Your task to perform on an android device: turn off smart reply in the gmail app Image 0: 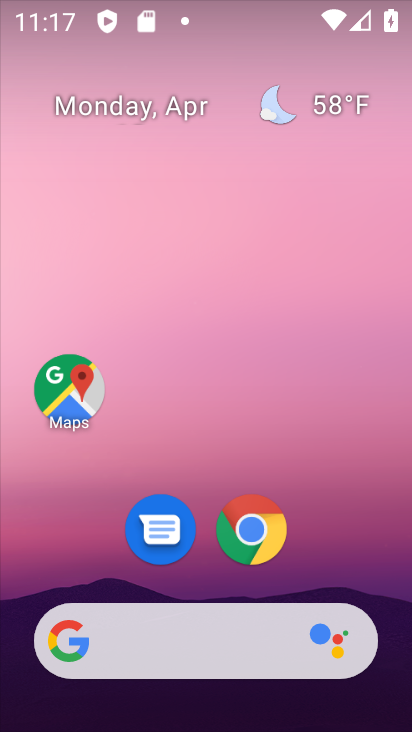
Step 0: drag from (381, 604) to (213, 52)
Your task to perform on an android device: turn off smart reply in the gmail app Image 1: 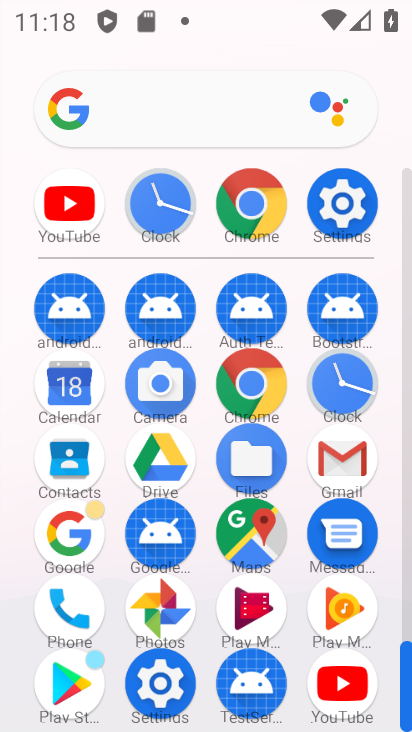
Step 1: click (345, 457)
Your task to perform on an android device: turn off smart reply in the gmail app Image 2: 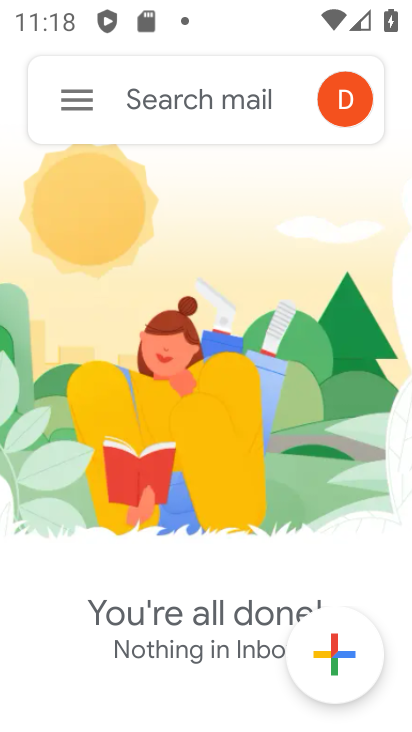
Step 2: click (78, 94)
Your task to perform on an android device: turn off smart reply in the gmail app Image 3: 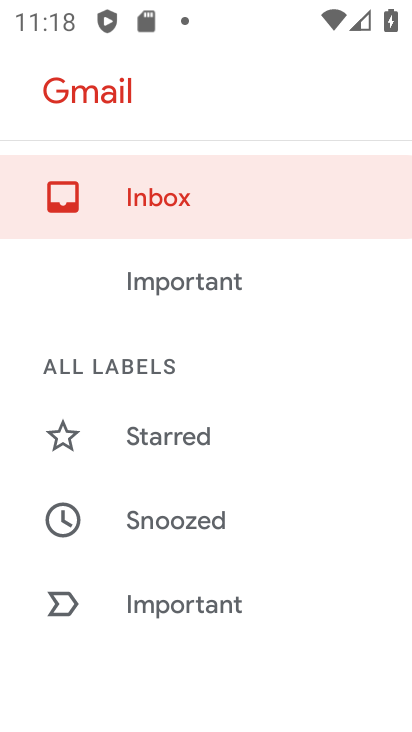
Step 3: drag from (169, 617) to (197, 141)
Your task to perform on an android device: turn off smart reply in the gmail app Image 4: 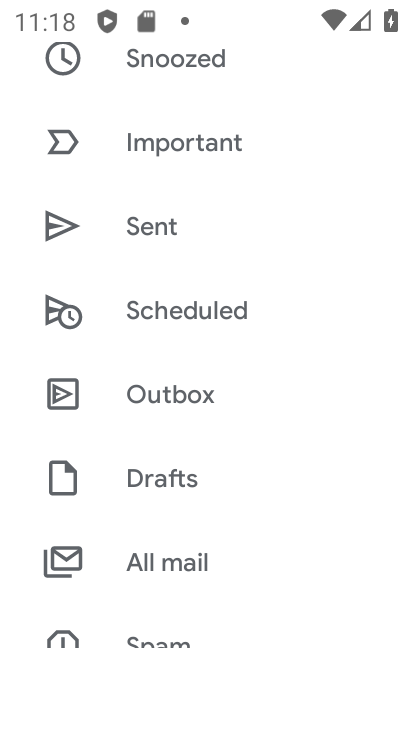
Step 4: drag from (192, 597) to (242, 88)
Your task to perform on an android device: turn off smart reply in the gmail app Image 5: 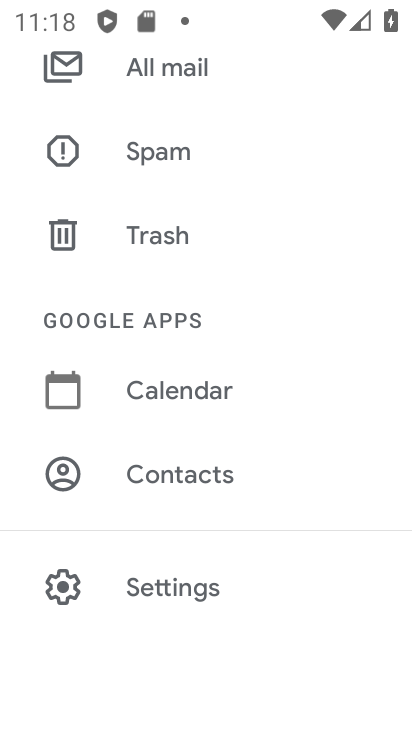
Step 5: click (192, 576)
Your task to perform on an android device: turn off smart reply in the gmail app Image 6: 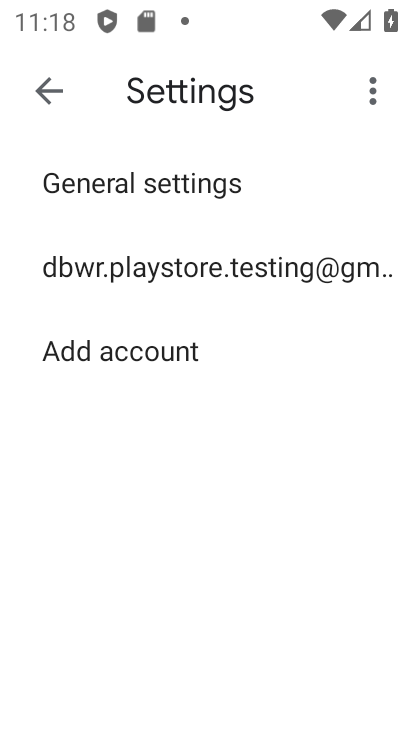
Step 6: click (188, 265)
Your task to perform on an android device: turn off smart reply in the gmail app Image 7: 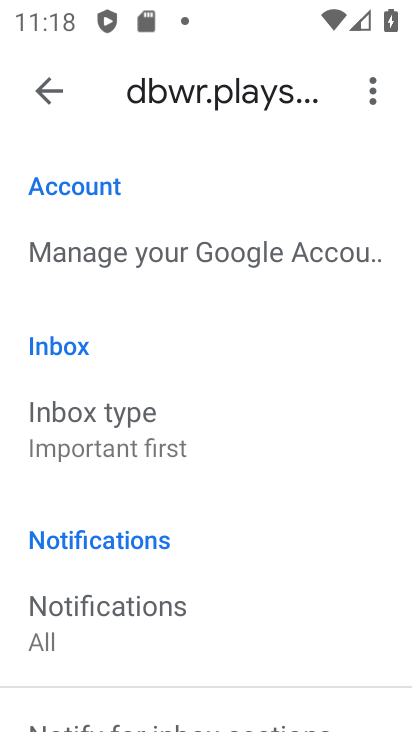
Step 7: drag from (87, 672) to (206, 245)
Your task to perform on an android device: turn off smart reply in the gmail app Image 8: 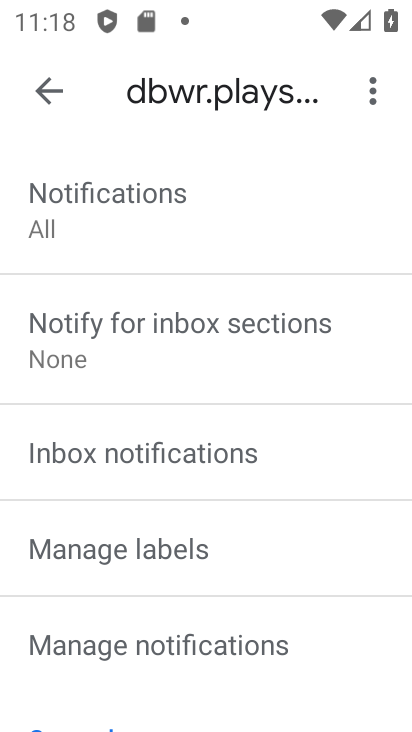
Step 8: drag from (101, 217) to (204, 561)
Your task to perform on an android device: turn off smart reply in the gmail app Image 9: 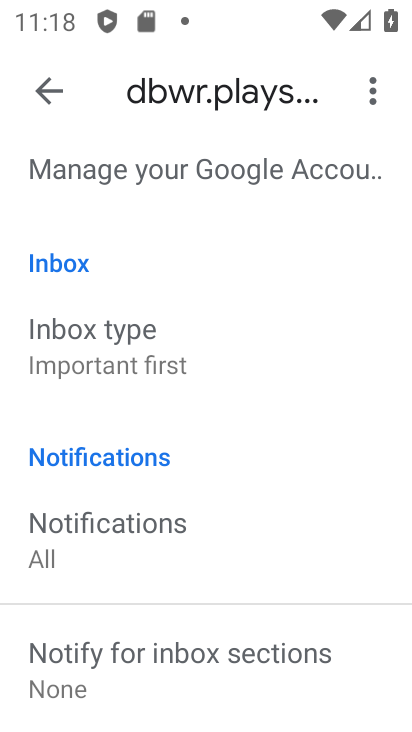
Step 9: drag from (151, 579) to (205, 95)
Your task to perform on an android device: turn off smart reply in the gmail app Image 10: 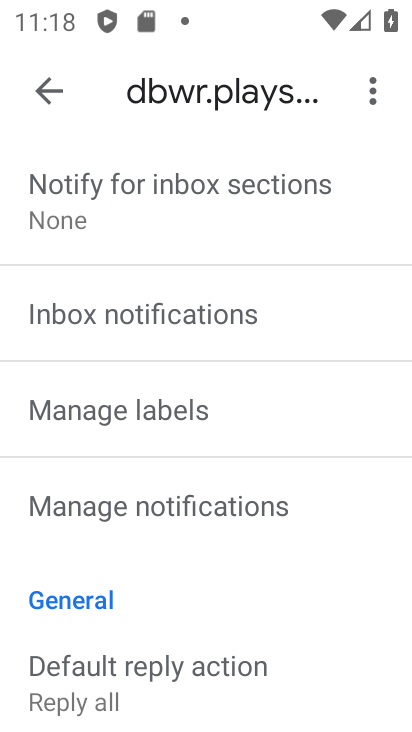
Step 10: drag from (128, 616) to (183, 208)
Your task to perform on an android device: turn off smart reply in the gmail app Image 11: 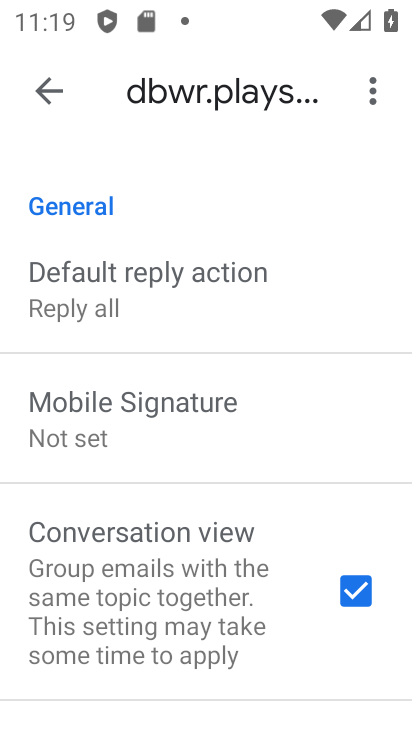
Step 11: drag from (116, 568) to (202, 158)
Your task to perform on an android device: turn off smart reply in the gmail app Image 12: 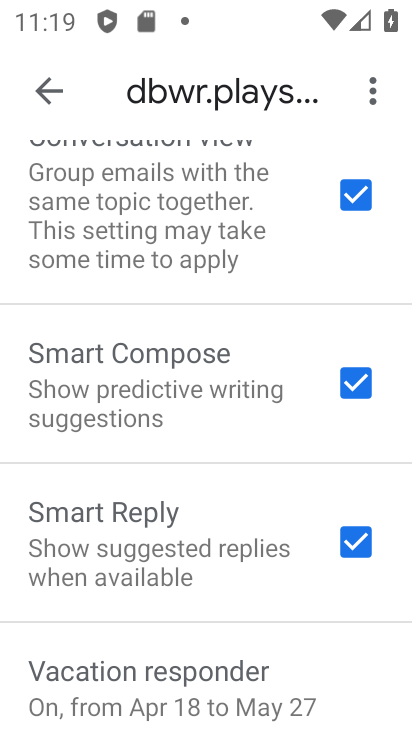
Step 12: click (216, 510)
Your task to perform on an android device: turn off smart reply in the gmail app Image 13: 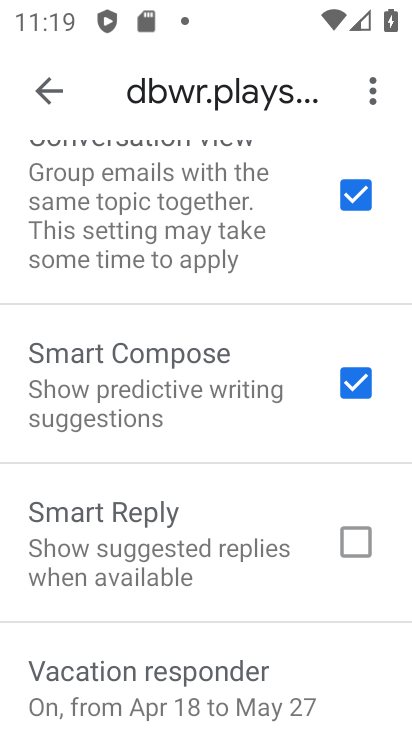
Step 13: task complete